Your task to perform on an android device: set an alarm Image 0: 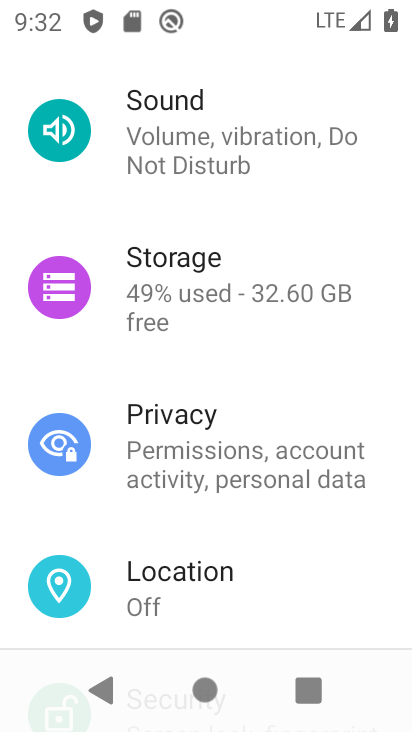
Step 0: drag from (213, 538) to (330, 77)
Your task to perform on an android device: set an alarm Image 1: 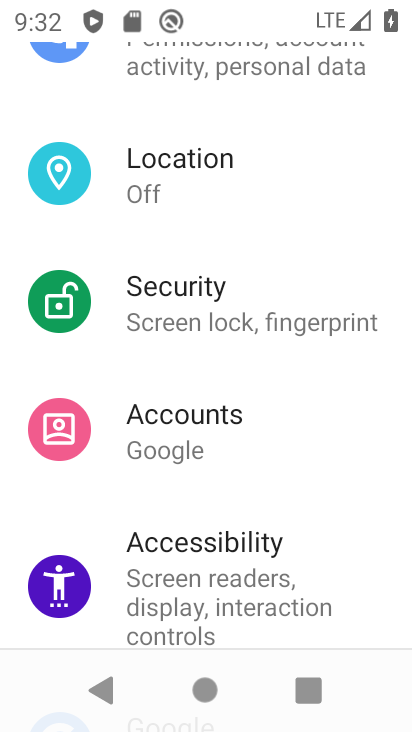
Step 1: press home button
Your task to perform on an android device: set an alarm Image 2: 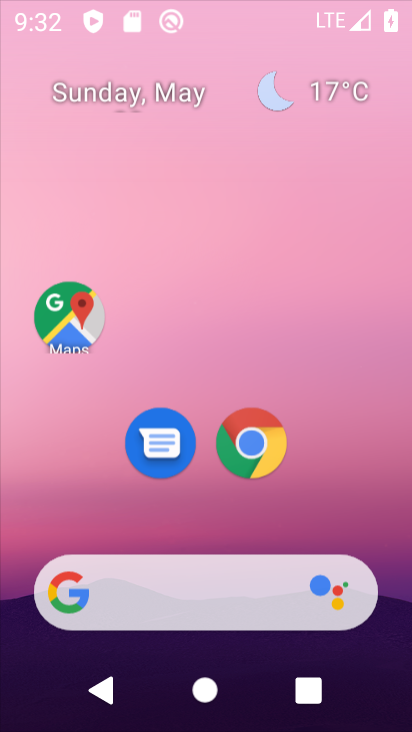
Step 2: drag from (254, 557) to (274, 182)
Your task to perform on an android device: set an alarm Image 3: 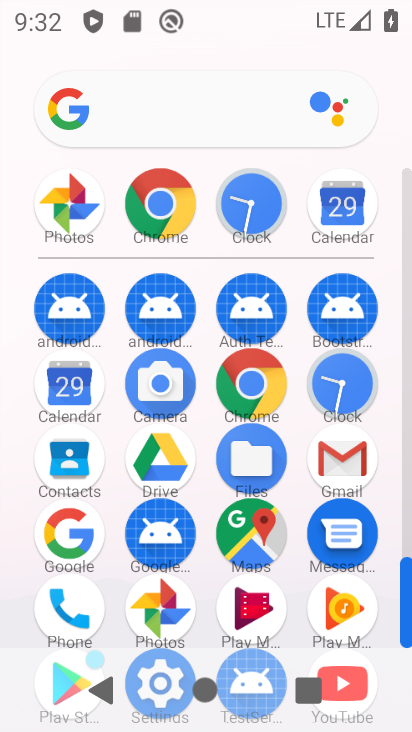
Step 3: drag from (206, 559) to (240, 223)
Your task to perform on an android device: set an alarm Image 4: 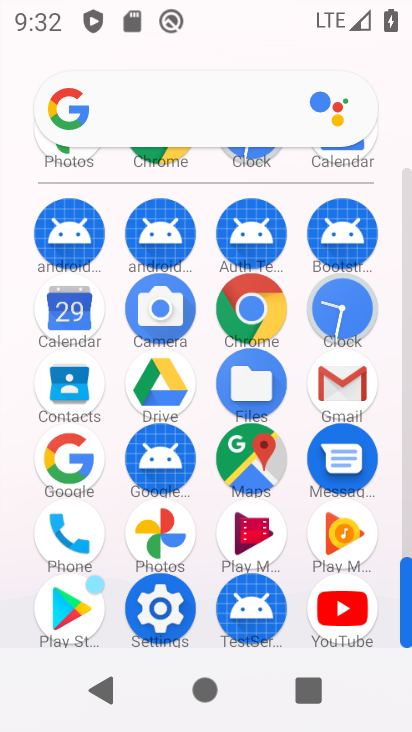
Step 4: click (300, 300)
Your task to perform on an android device: set an alarm Image 5: 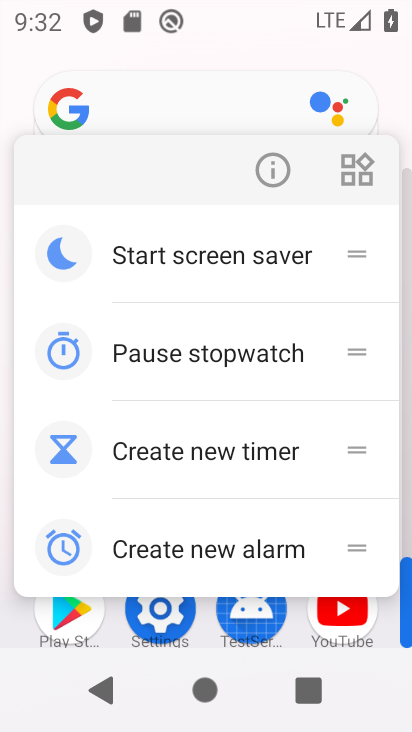
Step 5: click (282, 166)
Your task to perform on an android device: set an alarm Image 6: 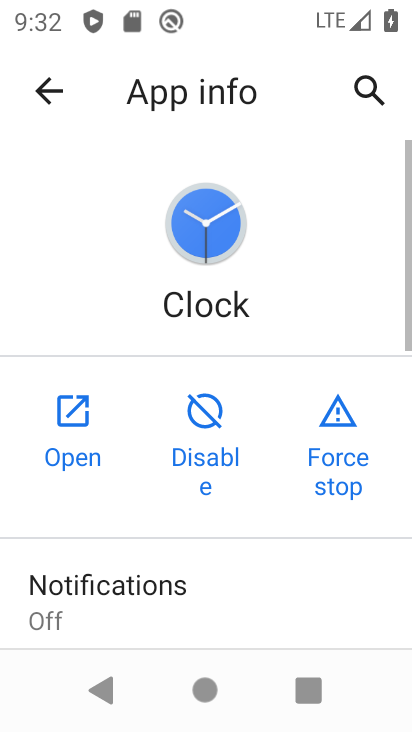
Step 6: click (70, 409)
Your task to perform on an android device: set an alarm Image 7: 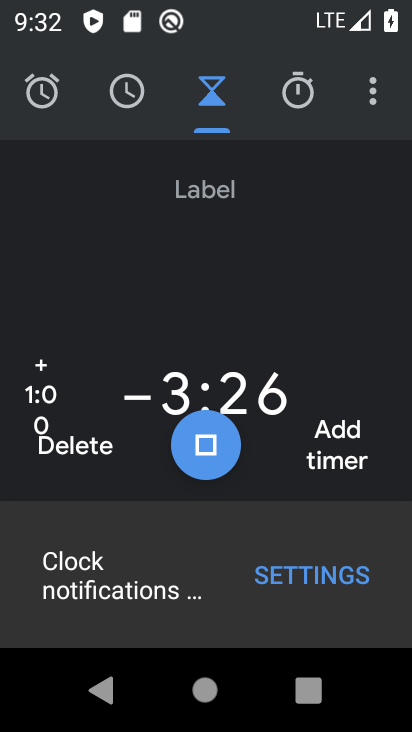
Step 7: click (37, 80)
Your task to perform on an android device: set an alarm Image 8: 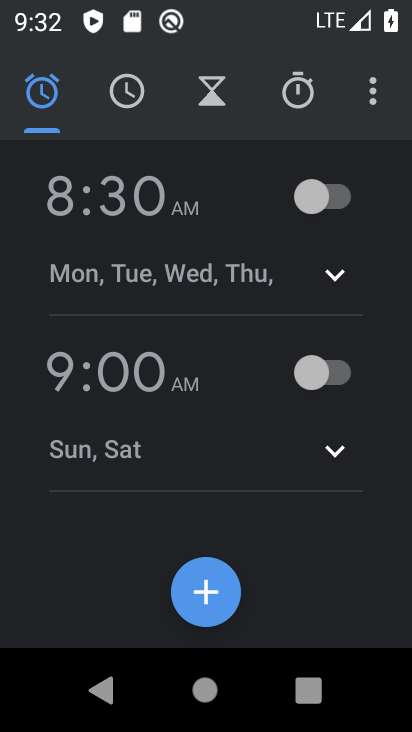
Step 8: drag from (311, 426) to (333, 181)
Your task to perform on an android device: set an alarm Image 9: 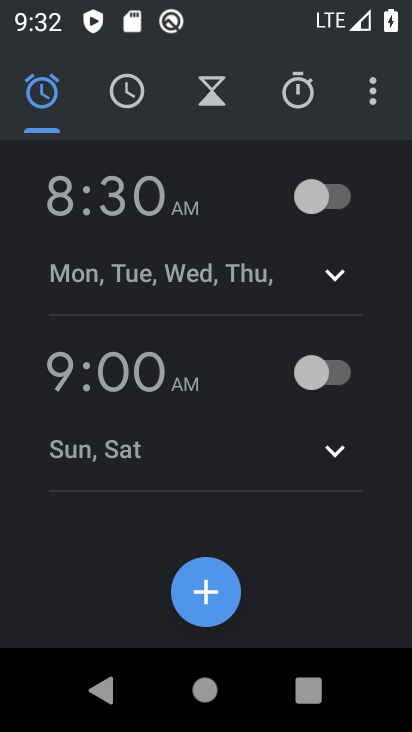
Step 9: click (306, 188)
Your task to perform on an android device: set an alarm Image 10: 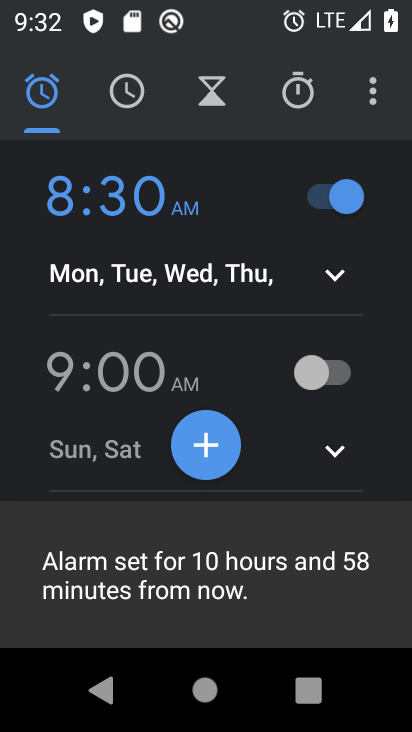
Step 10: task complete